Your task to perform on an android device: open chrome privacy settings Image 0: 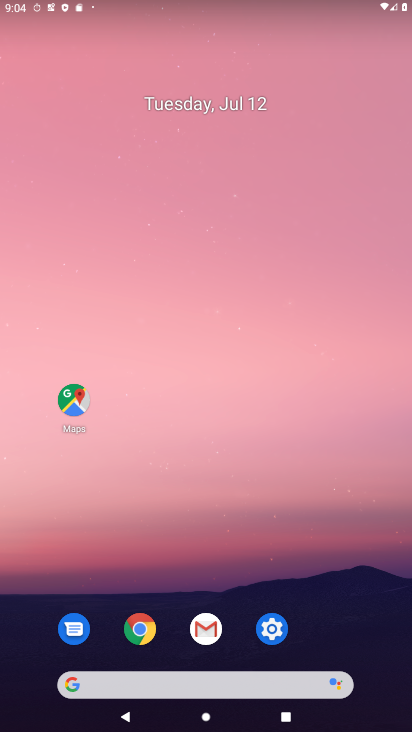
Step 0: press home button
Your task to perform on an android device: open chrome privacy settings Image 1: 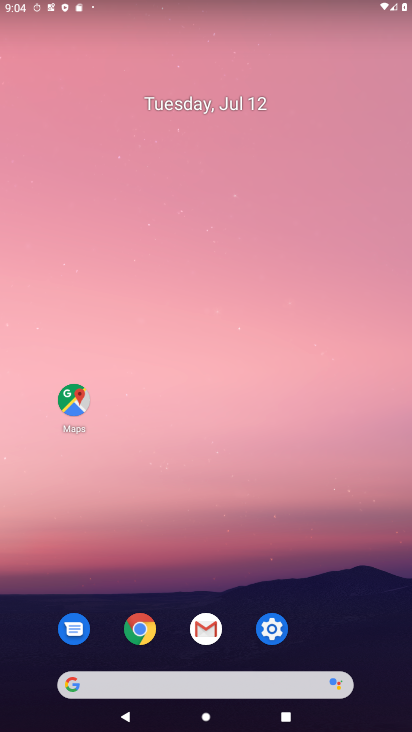
Step 1: click (147, 624)
Your task to perform on an android device: open chrome privacy settings Image 2: 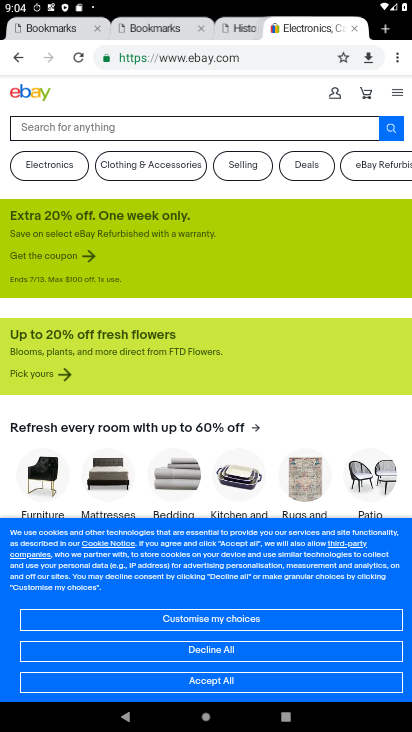
Step 2: click (398, 65)
Your task to perform on an android device: open chrome privacy settings Image 3: 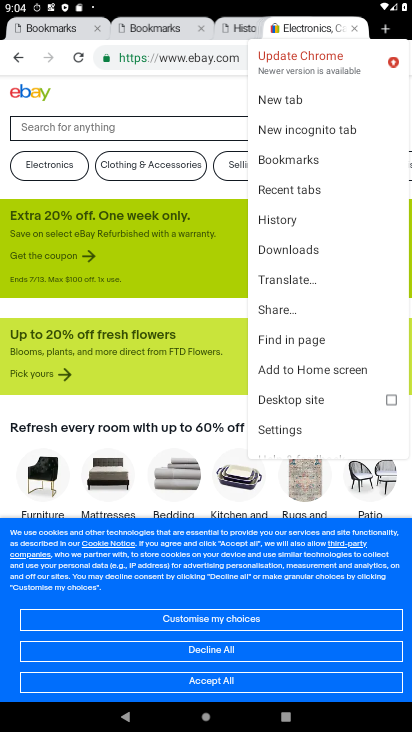
Step 3: click (283, 425)
Your task to perform on an android device: open chrome privacy settings Image 4: 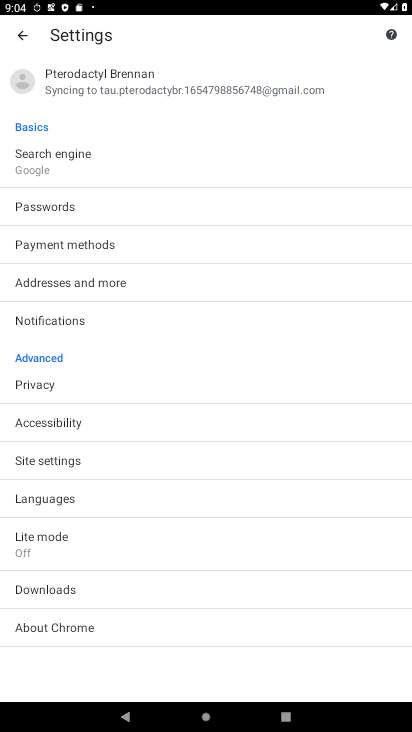
Step 4: click (33, 384)
Your task to perform on an android device: open chrome privacy settings Image 5: 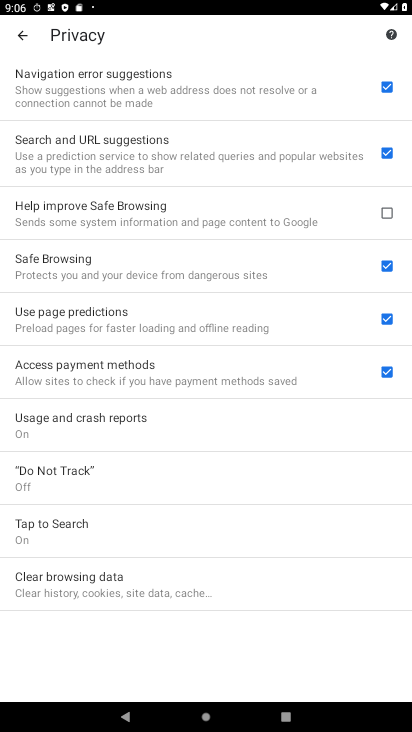
Step 5: task complete